Your task to perform on an android device: Search for pizza restaurants on Maps Image 0: 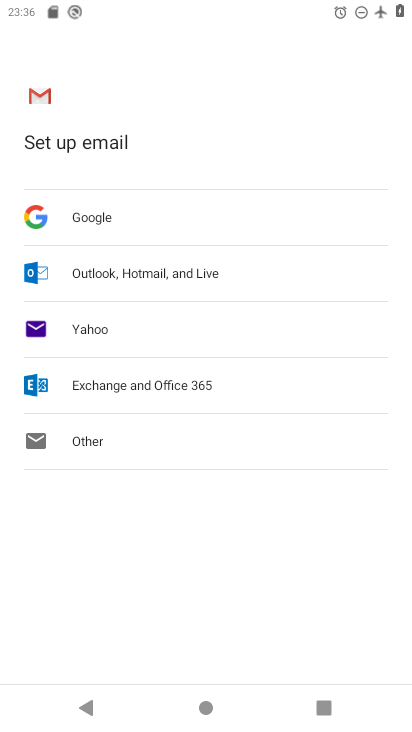
Step 0: press home button
Your task to perform on an android device: Search for pizza restaurants on Maps Image 1: 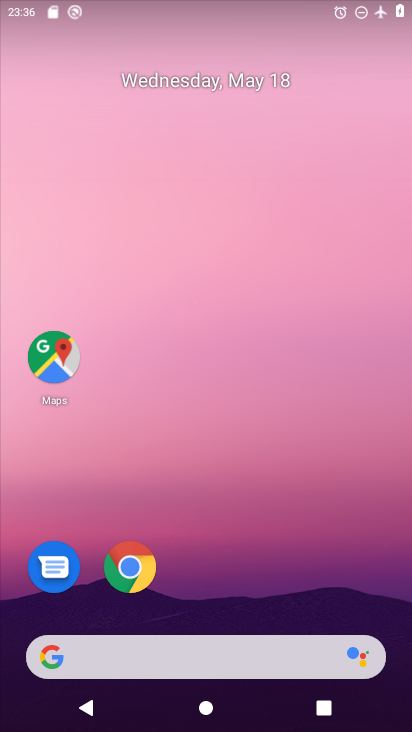
Step 1: drag from (256, 675) to (252, 96)
Your task to perform on an android device: Search for pizza restaurants on Maps Image 2: 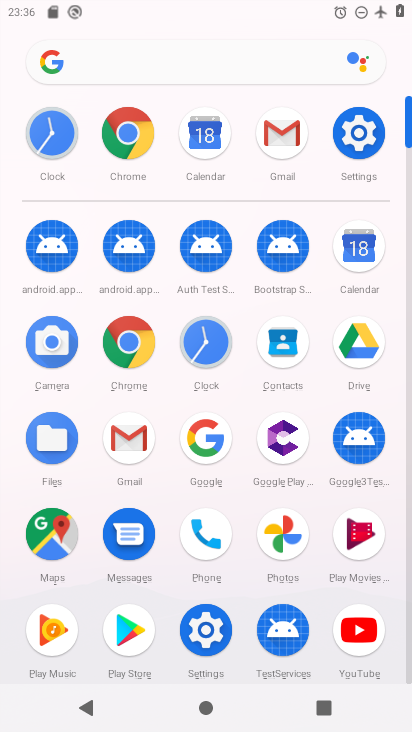
Step 2: click (54, 526)
Your task to perform on an android device: Search for pizza restaurants on Maps Image 3: 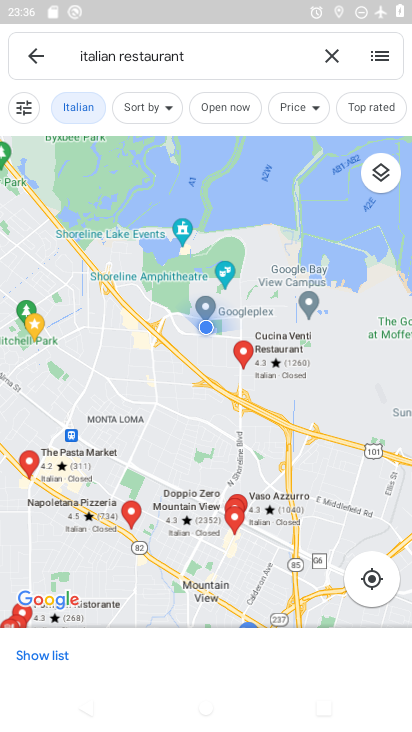
Step 3: click (325, 56)
Your task to perform on an android device: Search for pizza restaurants on Maps Image 4: 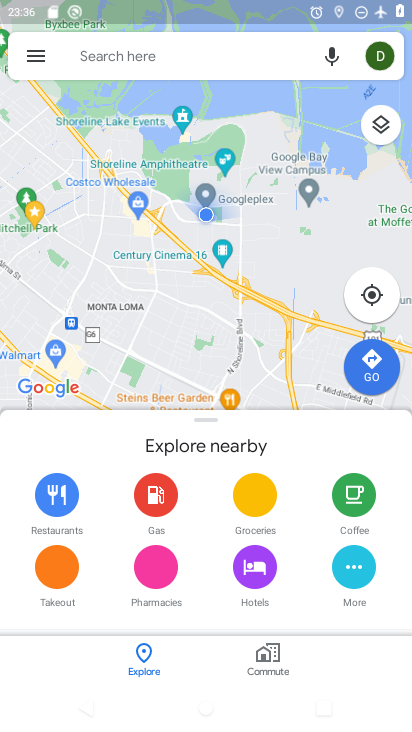
Step 4: click (150, 57)
Your task to perform on an android device: Search for pizza restaurants on Maps Image 5: 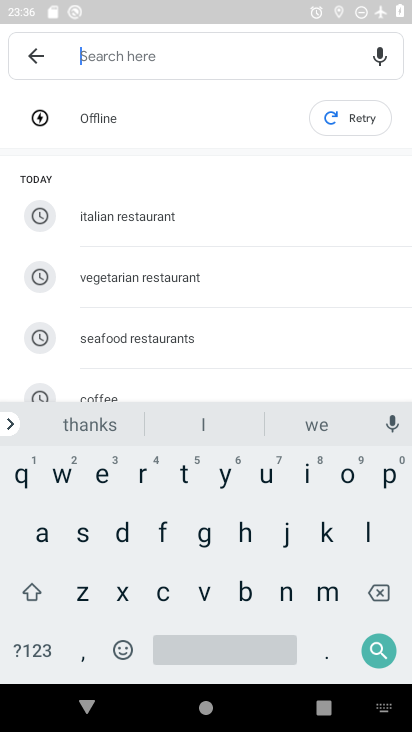
Step 5: click (377, 482)
Your task to perform on an android device: Search for pizza restaurants on Maps Image 6: 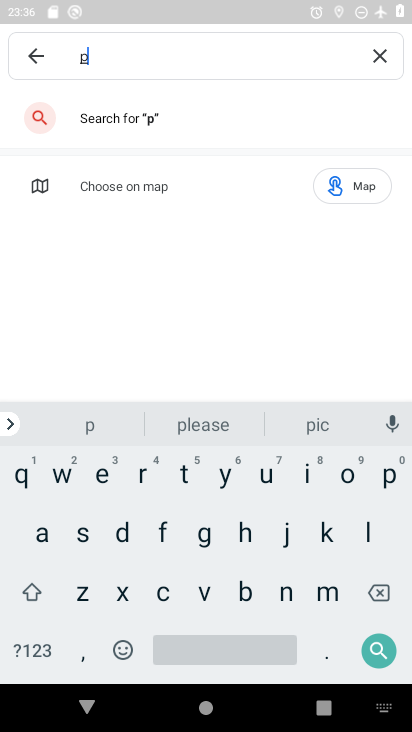
Step 6: click (301, 478)
Your task to perform on an android device: Search for pizza restaurants on Maps Image 7: 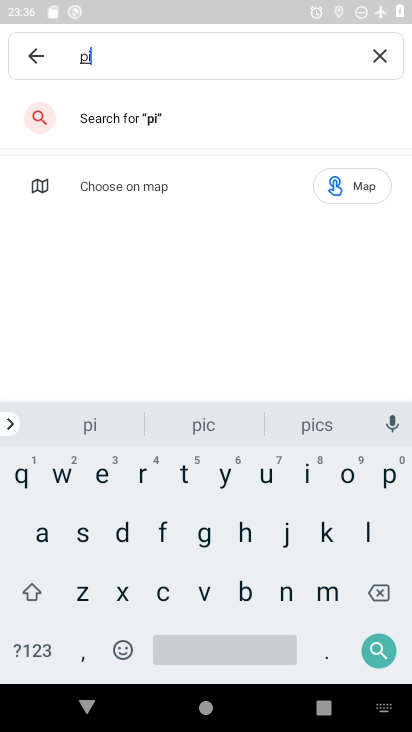
Step 7: press home button
Your task to perform on an android device: Search for pizza restaurants on Maps Image 8: 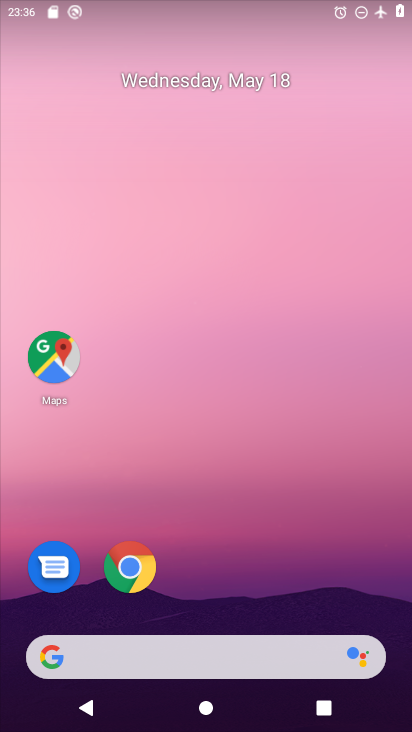
Step 8: drag from (258, 690) to (281, 116)
Your task to perform on an android device: Search for pizza restaurants on Maps Image 9: 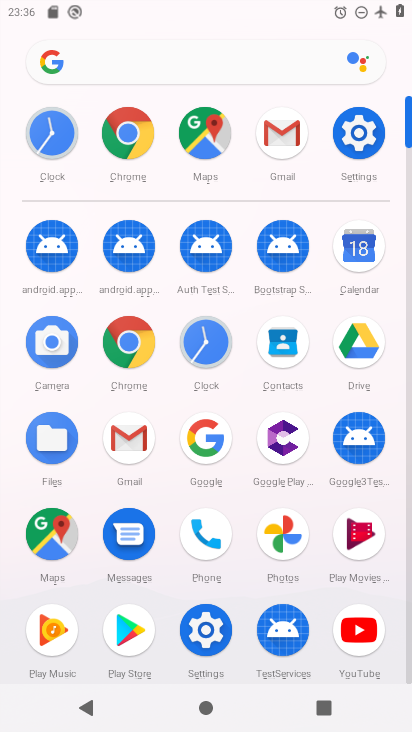
Step 9: click (349, 142)
Your task to perform on an android device: Search for pizza restaurants on Maps Image 10: 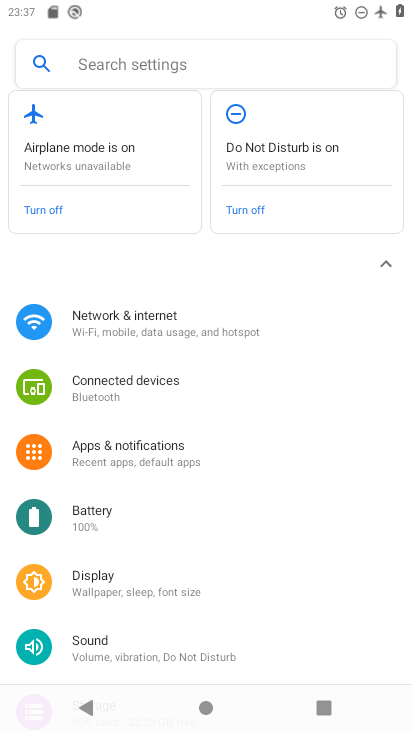
Step 10: click (61, 209)
Your task to perform on an android device: Search for pizza restaurants on Maps Image 11: 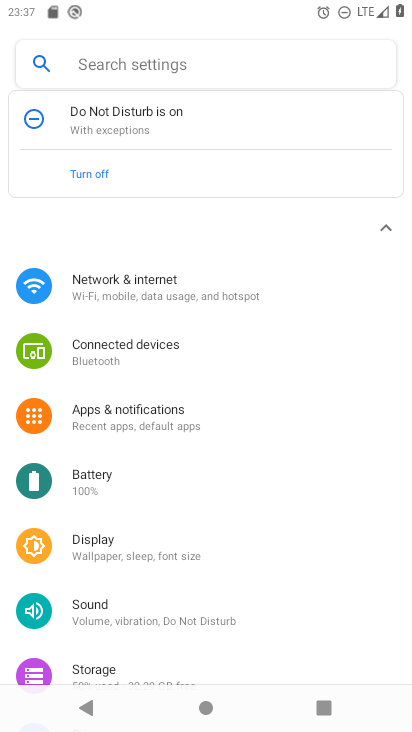
Step 11: press home button
Your task to perform on an android device: Search for pizza restaurants on Maps Image 12: 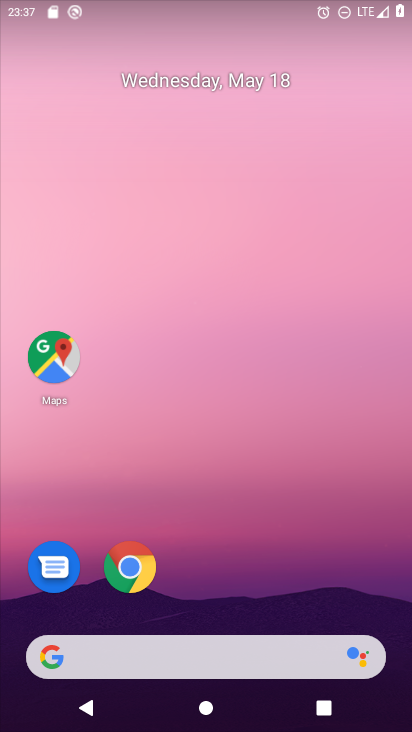
Step 12: drag from (253, 683) to (230, 328)
Your task to perform on an android device: Search for pizza restaurants on Maps Image 13: 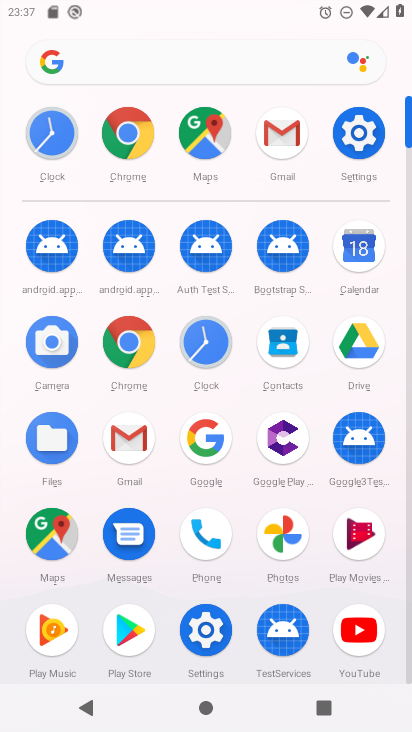
Step 13: click (53, 525)
Your task to perform on an android device: Search for pizza restaurants on Maps Image 14: 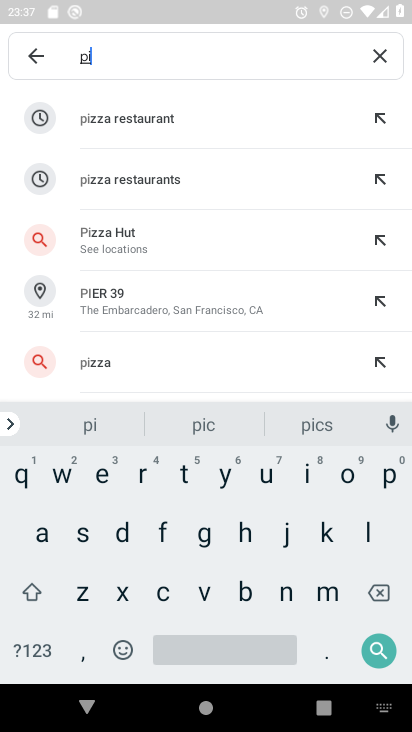
Step 14: click (139, 121)
Your task to perform on an android device: Search for pizza restaurants on Maps Image 15: 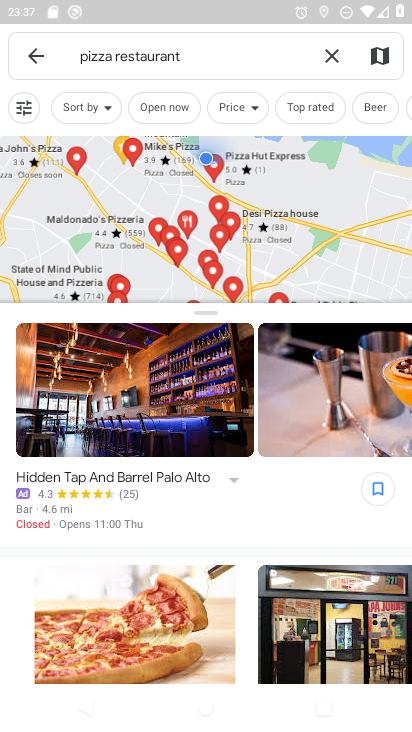
Step 15: click (146, 207)
Your task to perform on an android device: Search for pizza restaurants on Maps Image 16: 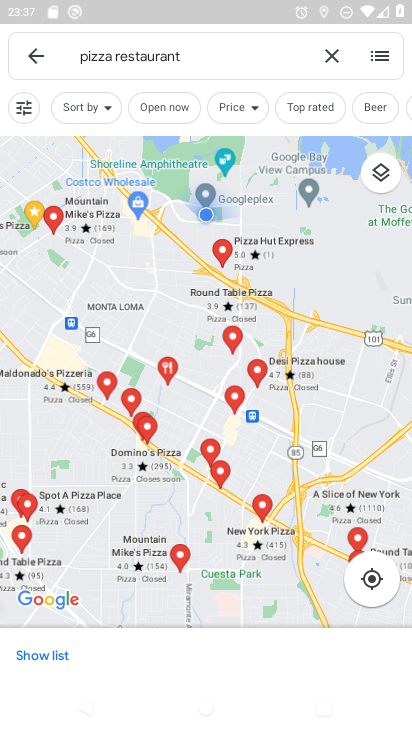
Step 16: task complete